Your task to perform on an android device: What is the news today? Image 0: 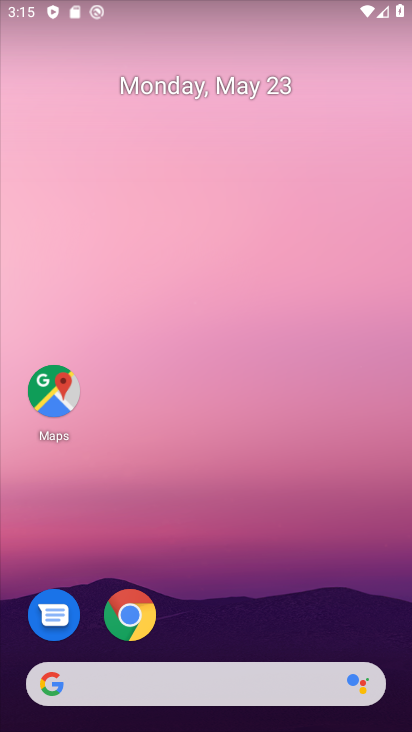
Step 0: drag from (269, 511) to (201, 14)
Your task to perform on an android device: What is the news today? Image 1: 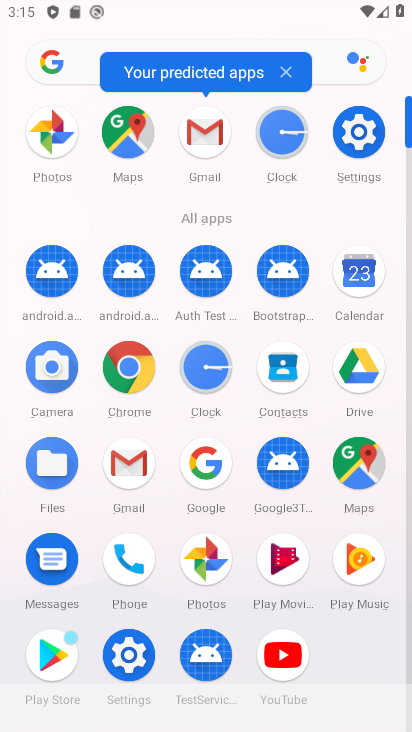
Step 1: drag from (14, 565) to (33, 184)
Your task to perform on an android device: What is the news today? Image 2: 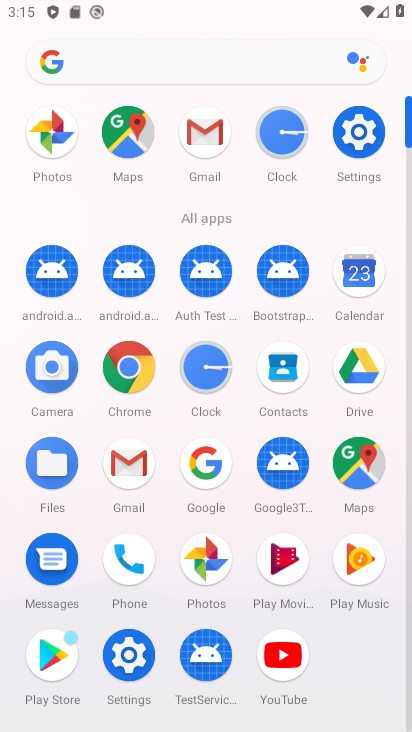
Step 2: click (130, 362)
Your task to perform on an android device: What is the news today? Image 3: 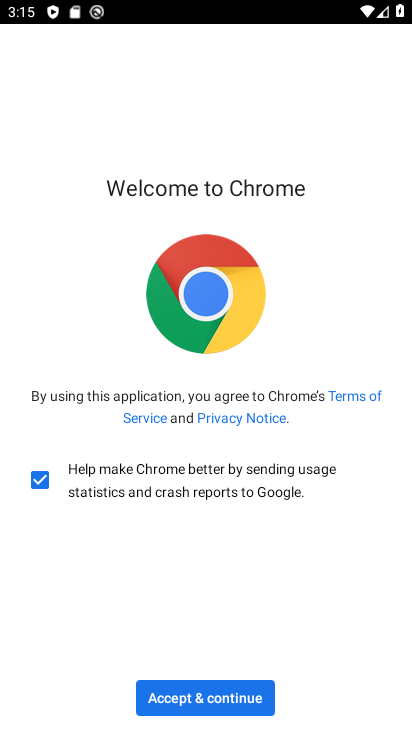
Step 3: click (235, 696)
Your task to perform on an android device: What is the news today? Image 4: 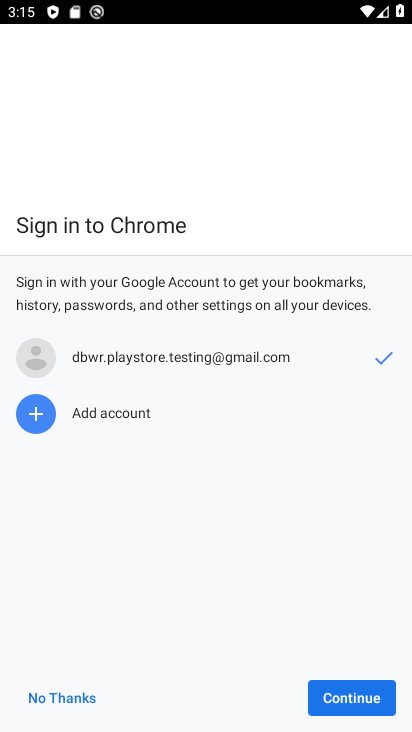
Step 4: click (374, 683)
Your task to perform on an android device: What is the news today? Image 5: 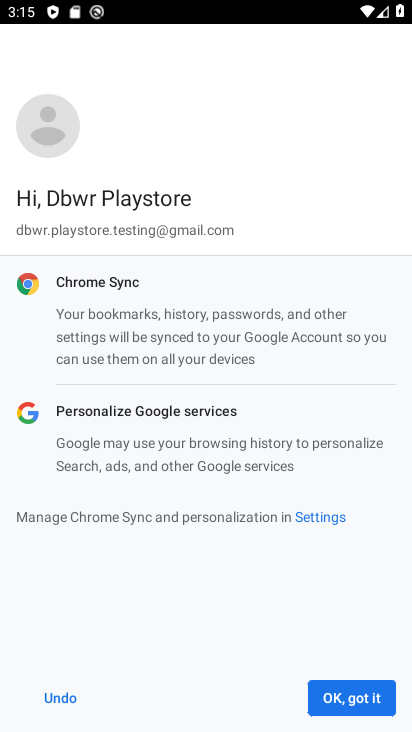
Step 5: click (318, 708)
Your task to perform on an android device: What is the news today? Image 6: 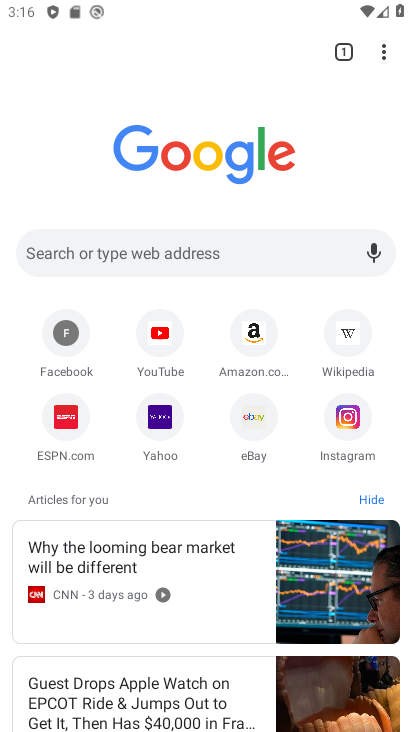
Step 6: click (187, 258)
Your task to perform on an android device: What is the news today? Image 7: 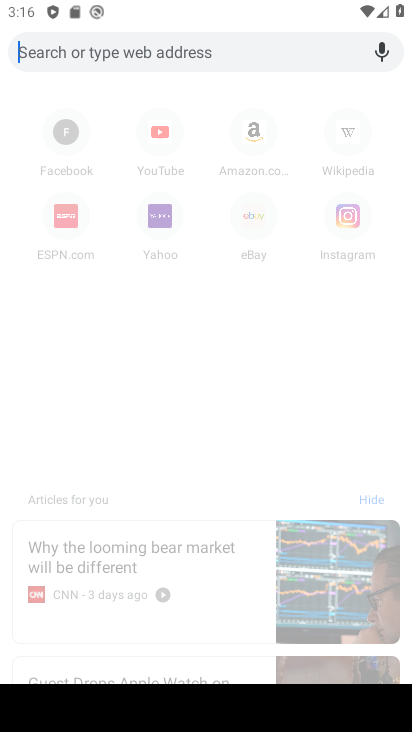
Step 7: type "What is the news today?"
Your task to perform on an android device: What is the news today? Image 8: 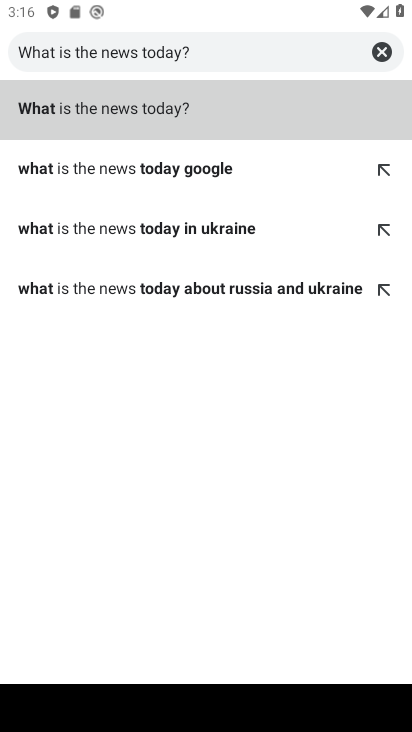
Step 8: click (174, 112)
Your task to perform on an android device: What is the news today? Image 9: 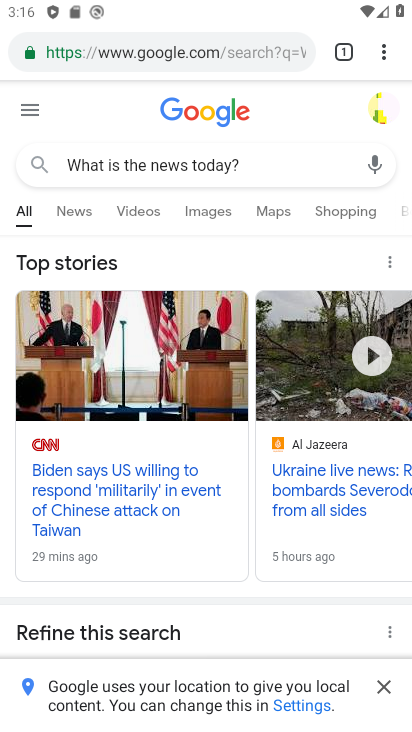
Step 9: task complete